Your task to perform on an android device: empty trash in the gmail app Image 0: 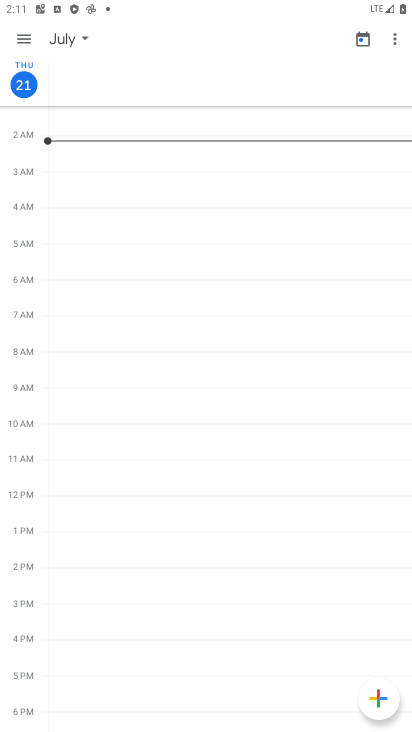
Step 0: press home button
Your task to perform on an android device: empty trash in the gmail app Image 1: 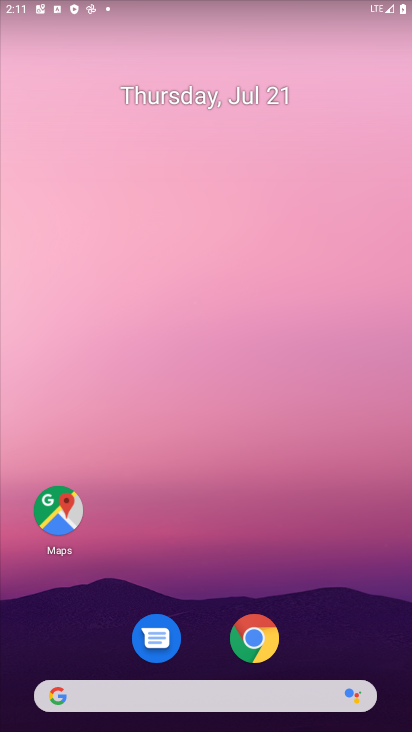
Step 1: drag from (199, 726) to (136, 255)
Your task to perform on an android device: empty trash in the gmail app Image 2: 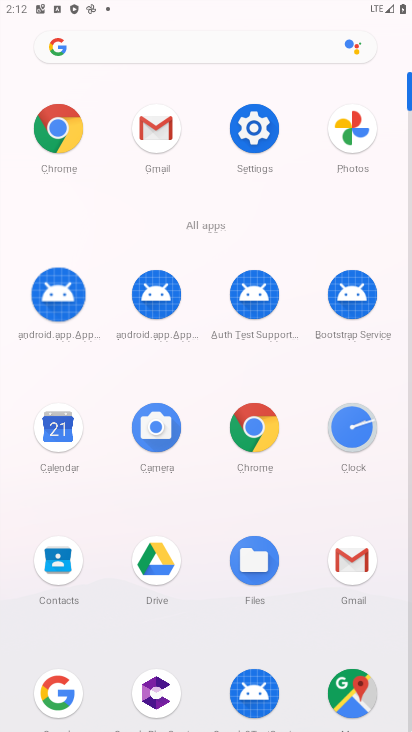
Step 2: click (150, 144)
Your task to perform on an android device: empty trash in the gmail app Image 3: 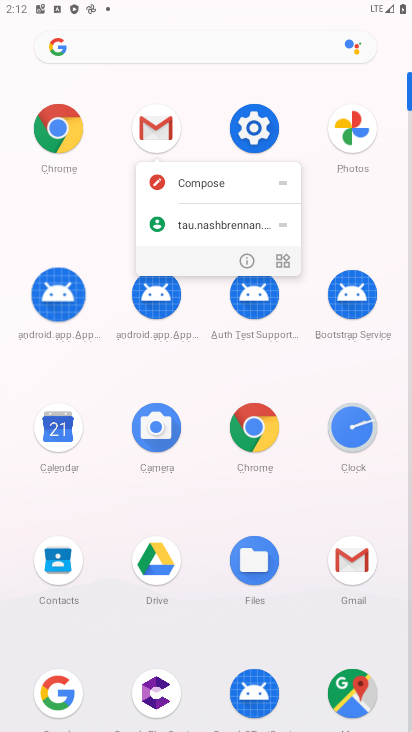
Step 3: click (149, 146)
Your task to perform on an android device: empty trash in the gmail app Image 4: 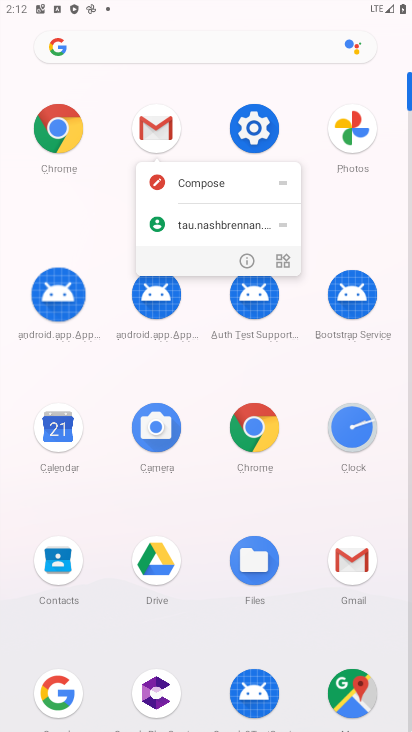
Step 4: click (149, 146)
Your task to perform on an android device: empty trash in the gmail app Image 5: 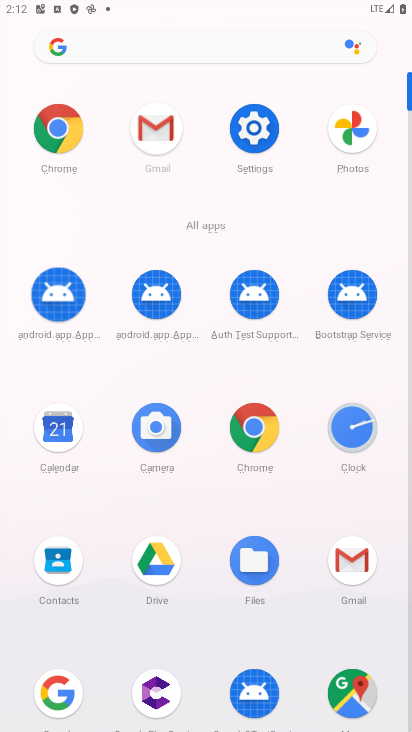
Step 5: click (149, 146)
Your task to perform on an android device: empty trash in the gmail app Image 6: 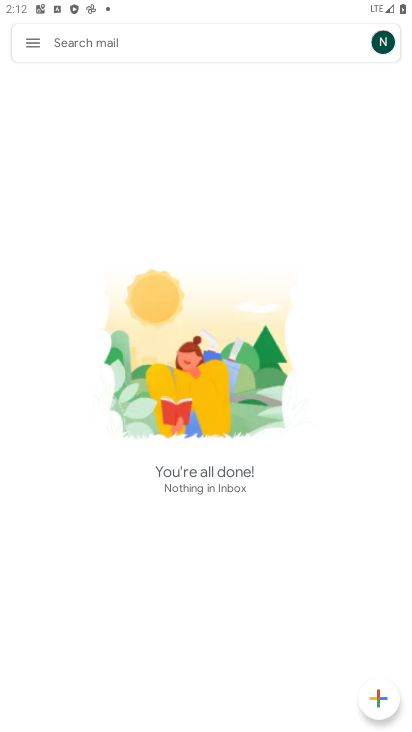
Step 6: click (33, 42)
Your task to perform on an android device: empty trash in the gmail app Image 7: 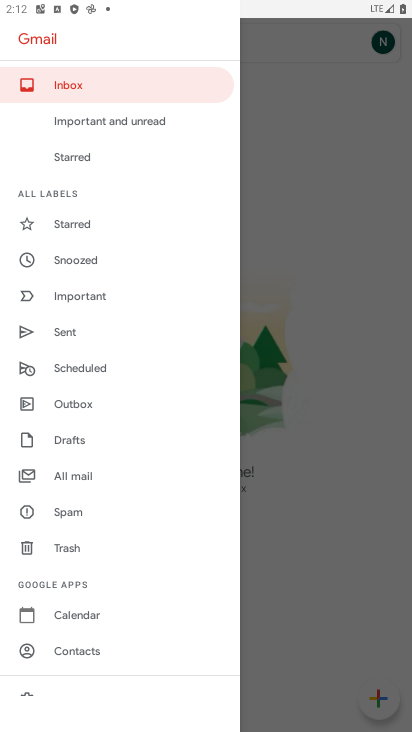
Step 7: click (92, 548)
Your task to perform on an android device: empty trash in the gmail app Image 8: 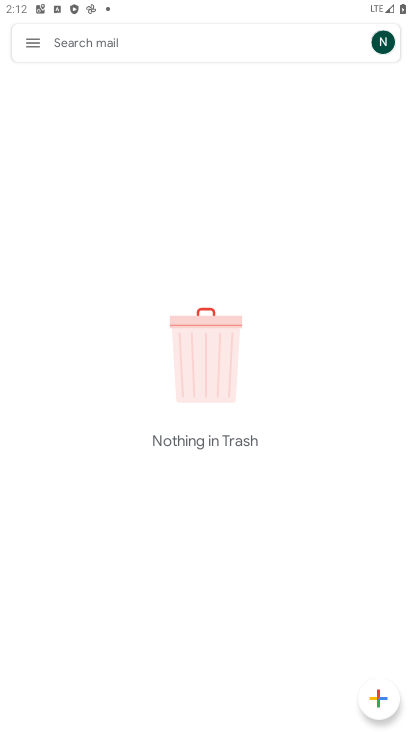
Step 8: task complete